Your task to perform on an android device: Toggle the flashlight Image 0: 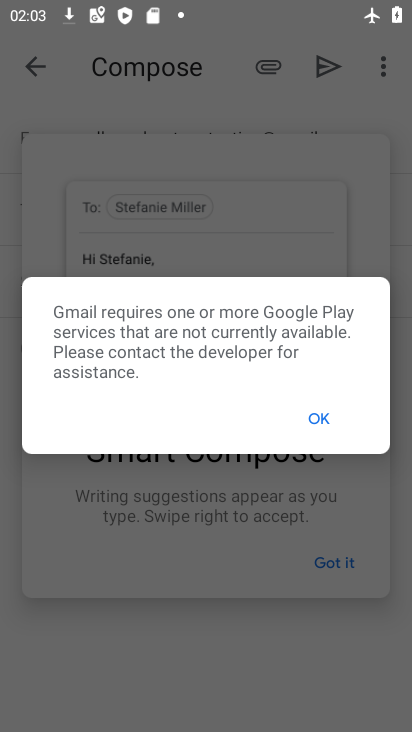
Step 0: press home button
Your task to perform on an android device: Toggle the flashlight Image 1: 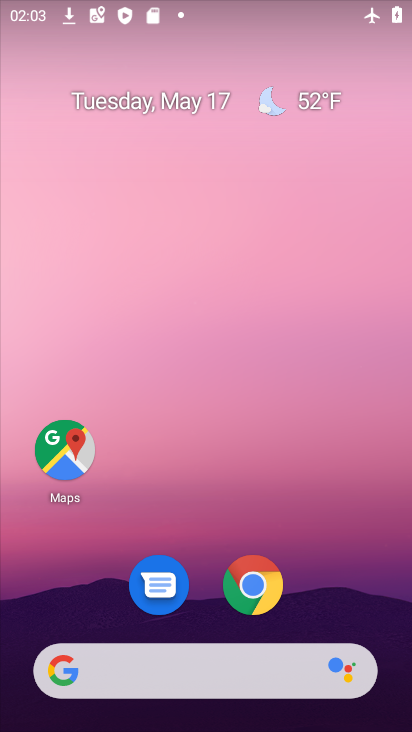
Step 1: drag from (258, 471) to (254, 55)
Your task to perform on an android device: Toggle the flashlight Image 2: 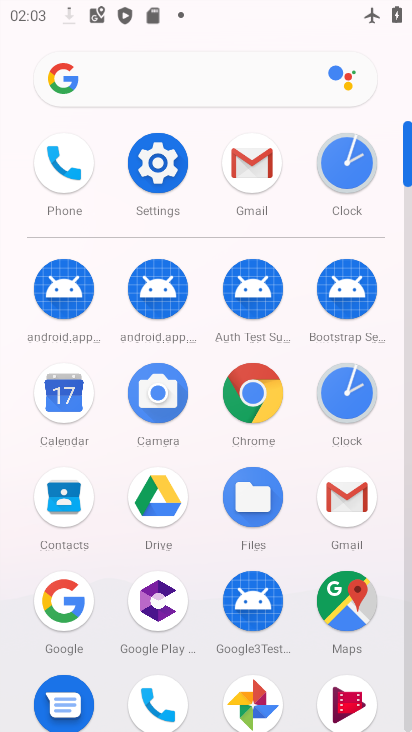
Step 2: click (164, 150)
Your task to perform on an android device: Toggle the flashlight Image 3: 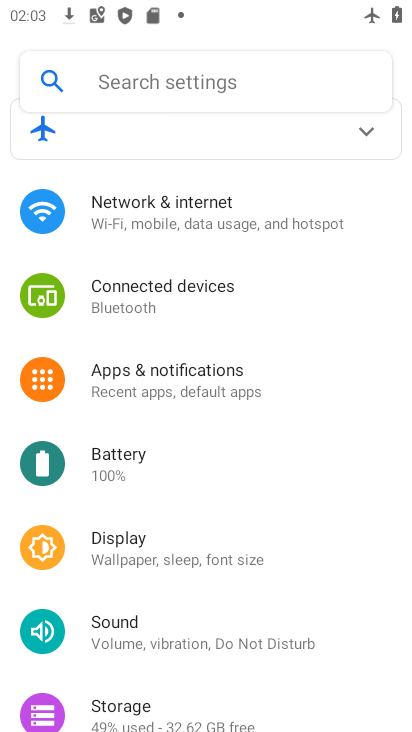
Step 3: click (191, 74)
Your task to perform on an android device: Toggle the flashlight Image 4: 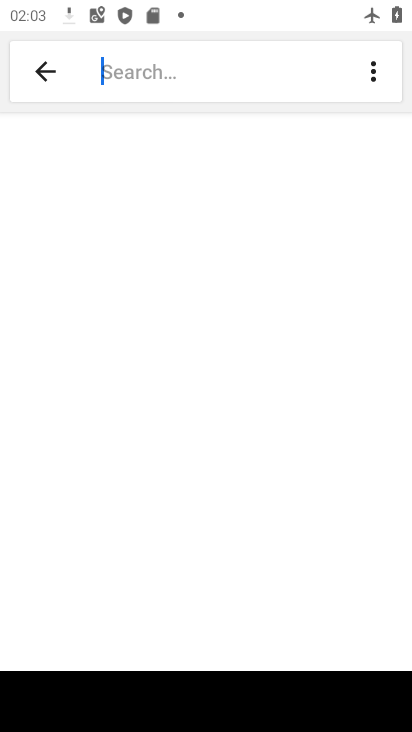
Step 4: type "Flashlight"
Your task to perform on an android device: Toggle the flashlight Image 5: 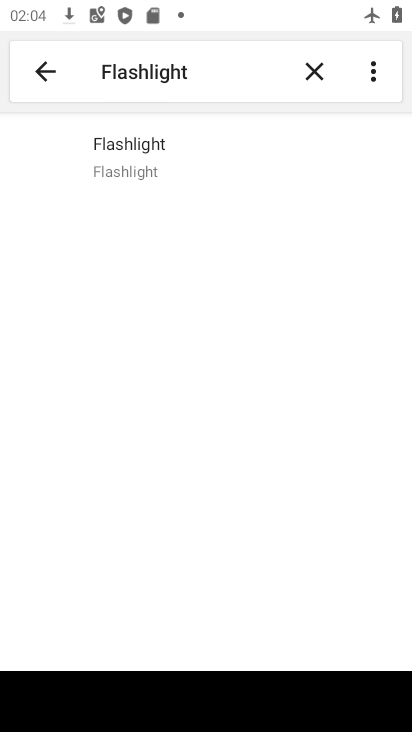
Step 5: click (148, 143)
Your task to perform on an android device: Toggle the flashlight Image 6: 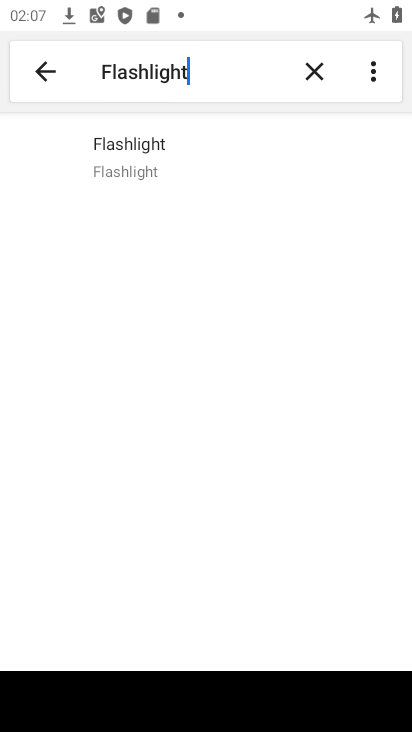
Step 6: task complete